Your task to perform on an android device: turn on notifications settings in the gmail app Image 0: 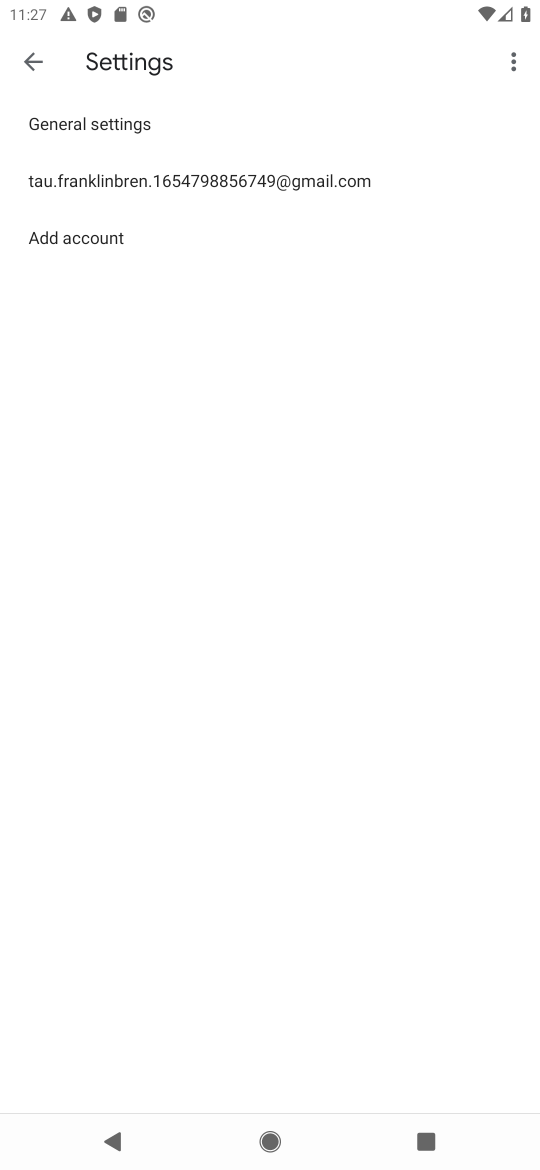
Step 0: press home button
Your task to perform on an android device: turn on notifications settings in the gmail app Image 1: 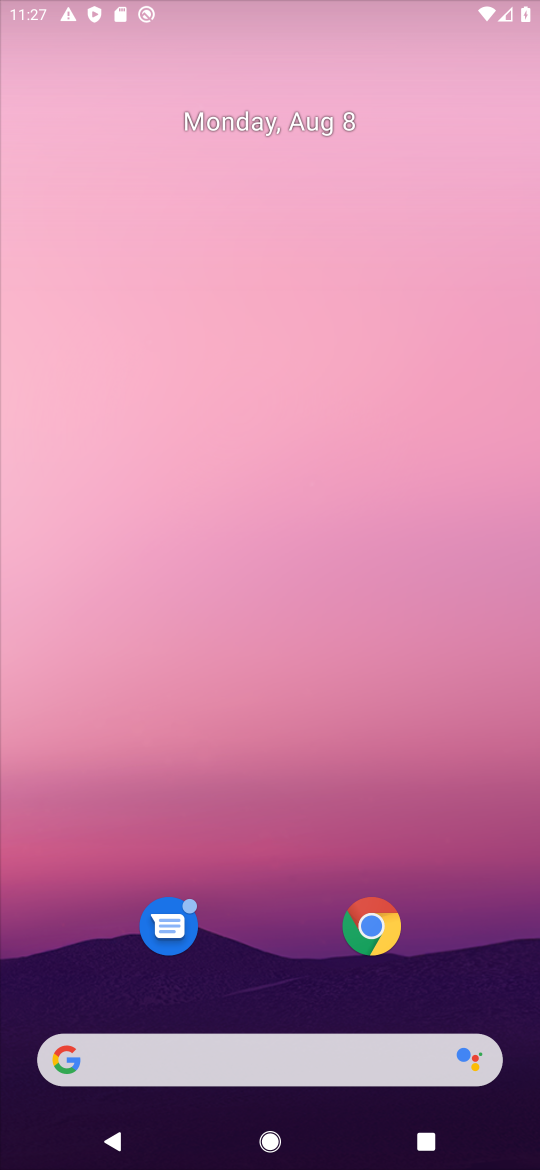
Step 1: task complete